Your task to perform on an android device: Open network settings Image 0: 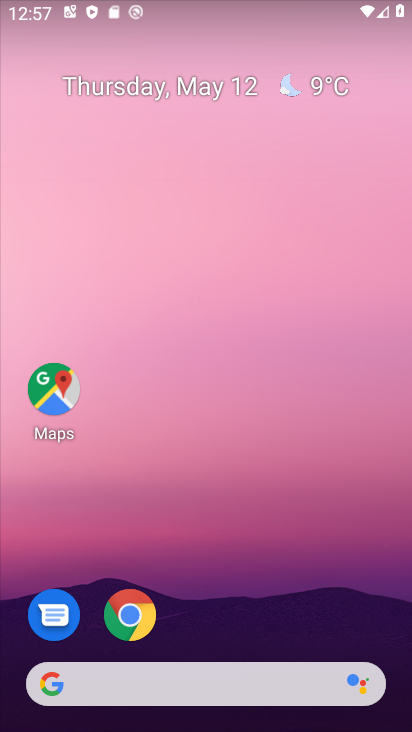
Step 0: drag from (264, 624) to (275, 28)
Your task to perform on an android device: Open network settings Image 1: 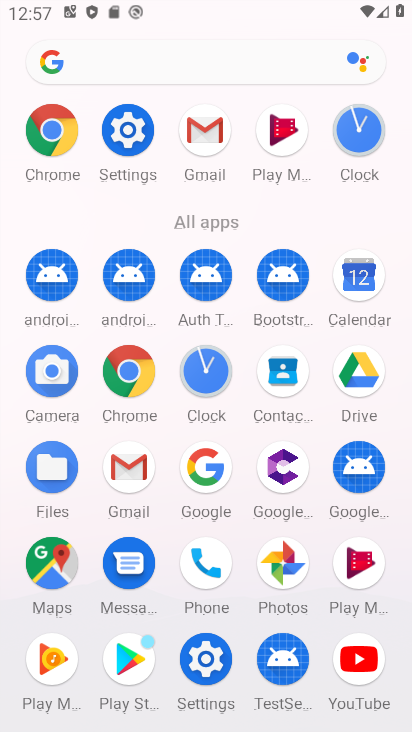
Step 1: click (133, 125)
Your task to perform on an android device: Open network settings Image 2: 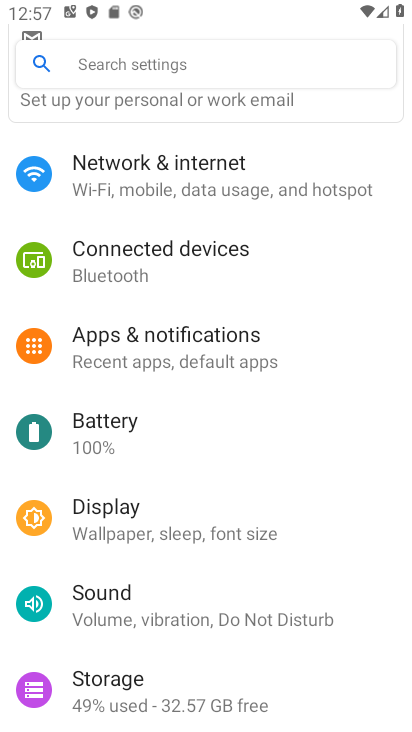
Step 2: click (133, 143)
Your task to perform on an android device: Open network settings Image 3: 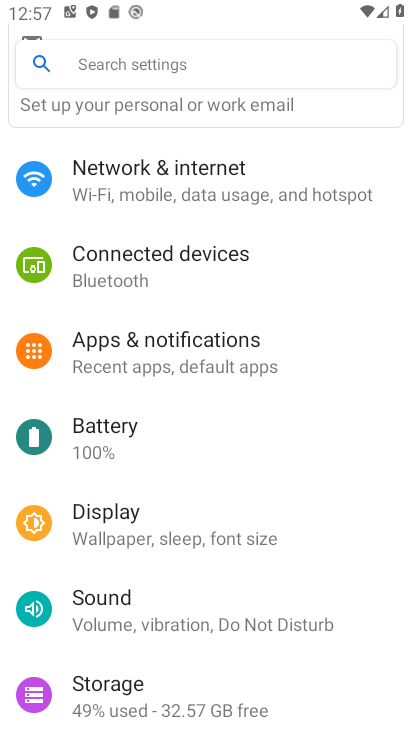
Step 3: click (130, 176)
Your task to perform on an android device: Open network settings Image 4: 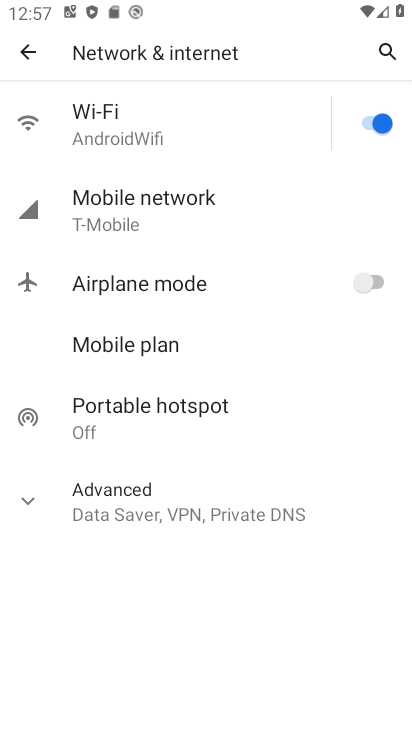
Step 4: click (126, 208)
Your task to perform on an android device: Open network settings Image 5: 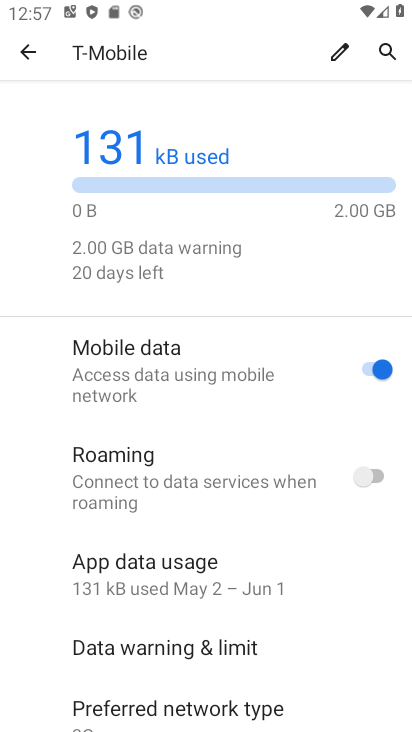
Step 5: task complete